Your task to perform on an android device: Open the web browser Image 0: 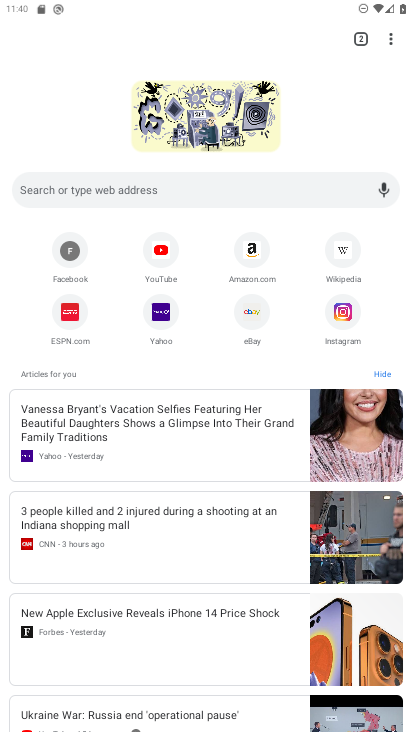
Step 0: task complete